Your task to perform on an android device: Clear the shopping cart on newegg.com. Add corsair k70 to the cart on newegg.com, then select checkout. Image 0: 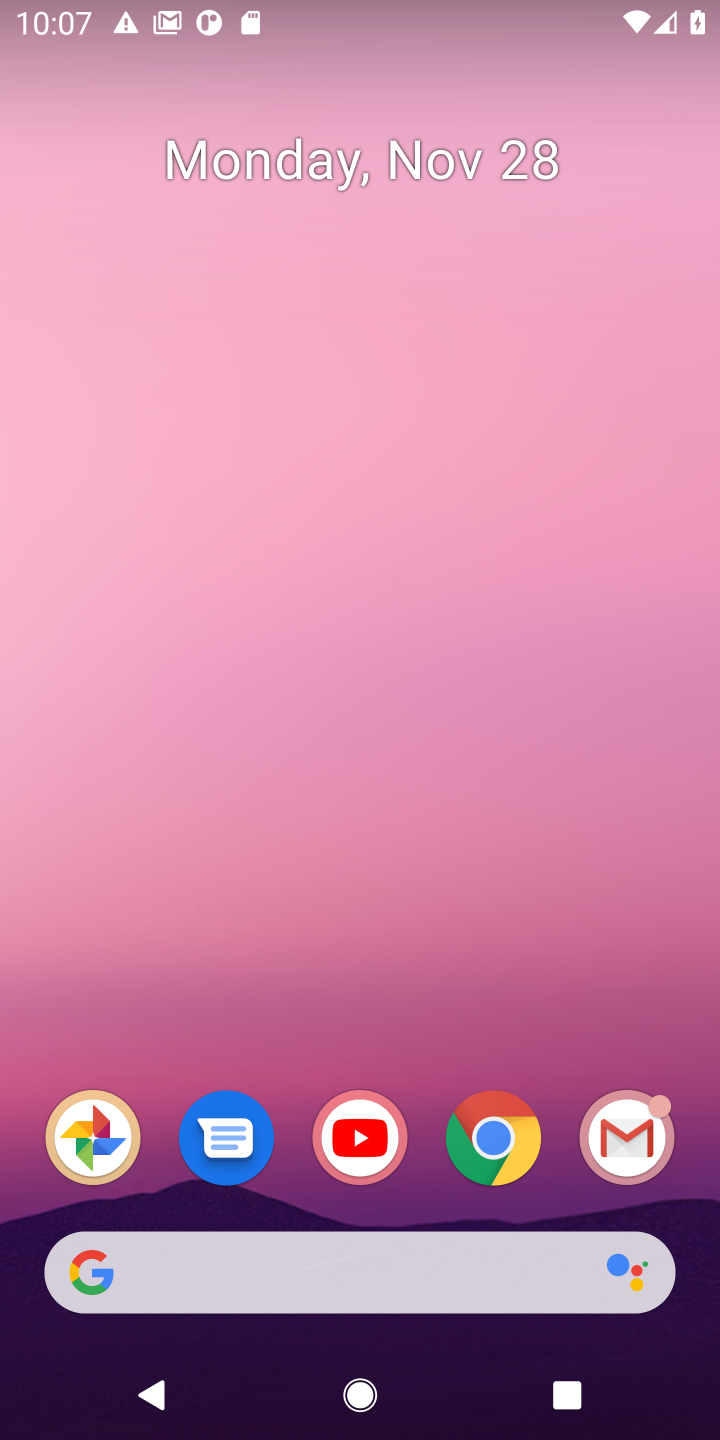
Step 0: click (493, 1135)
Your task to perform on an android device: Clear the shopping cart on newegg.com. Add corsair k70 to the cart on newegg.com, then select checkout. Image 1: 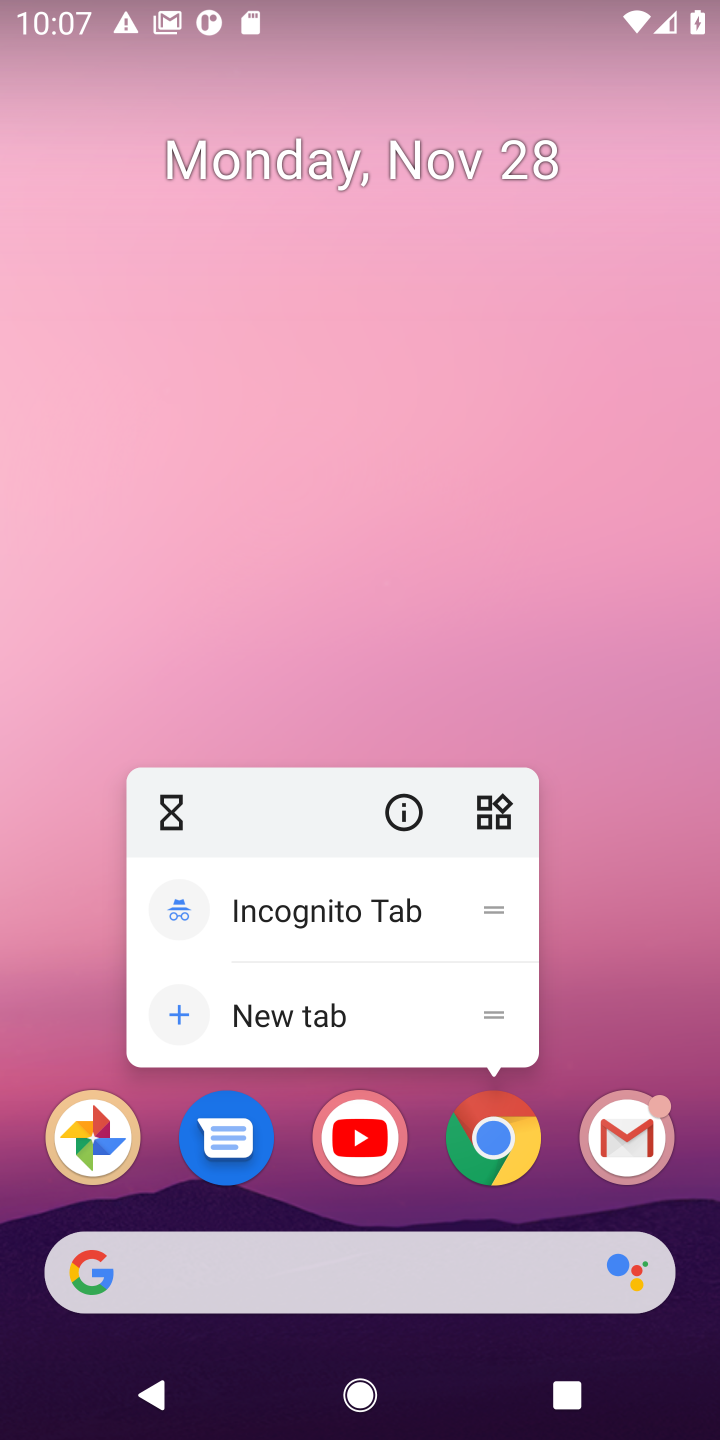
Step 1: click (493, 1135)
Your task to perform on an android device: Clear the shopping cart on newegg.com. Add corsair k70 to the cart on newegg.com, then select checkout. Image 2: 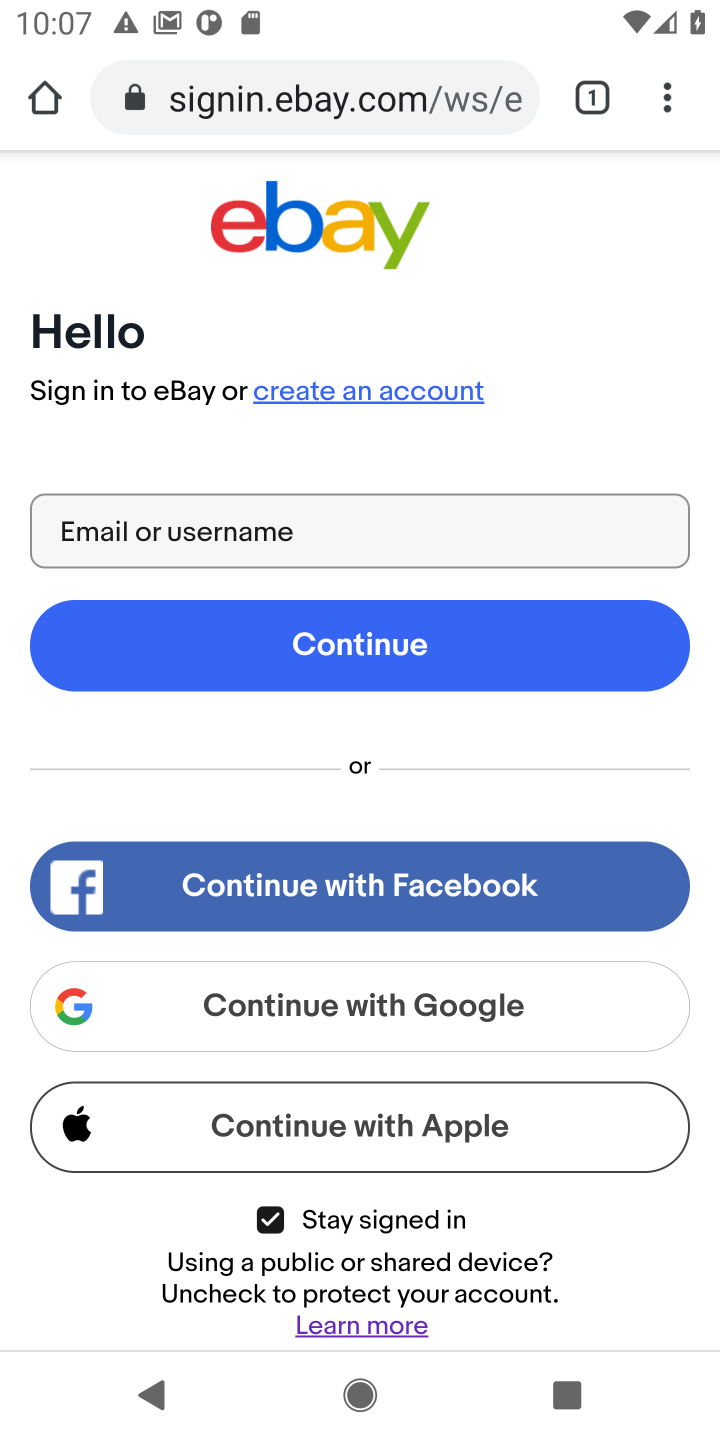
Step 2: click (279, 109)
Your task to perform on an android device: Clear the shopping cart on newegg.com. Add corsair k70 to the cart on newegg.com, then select checkout. Image 3: 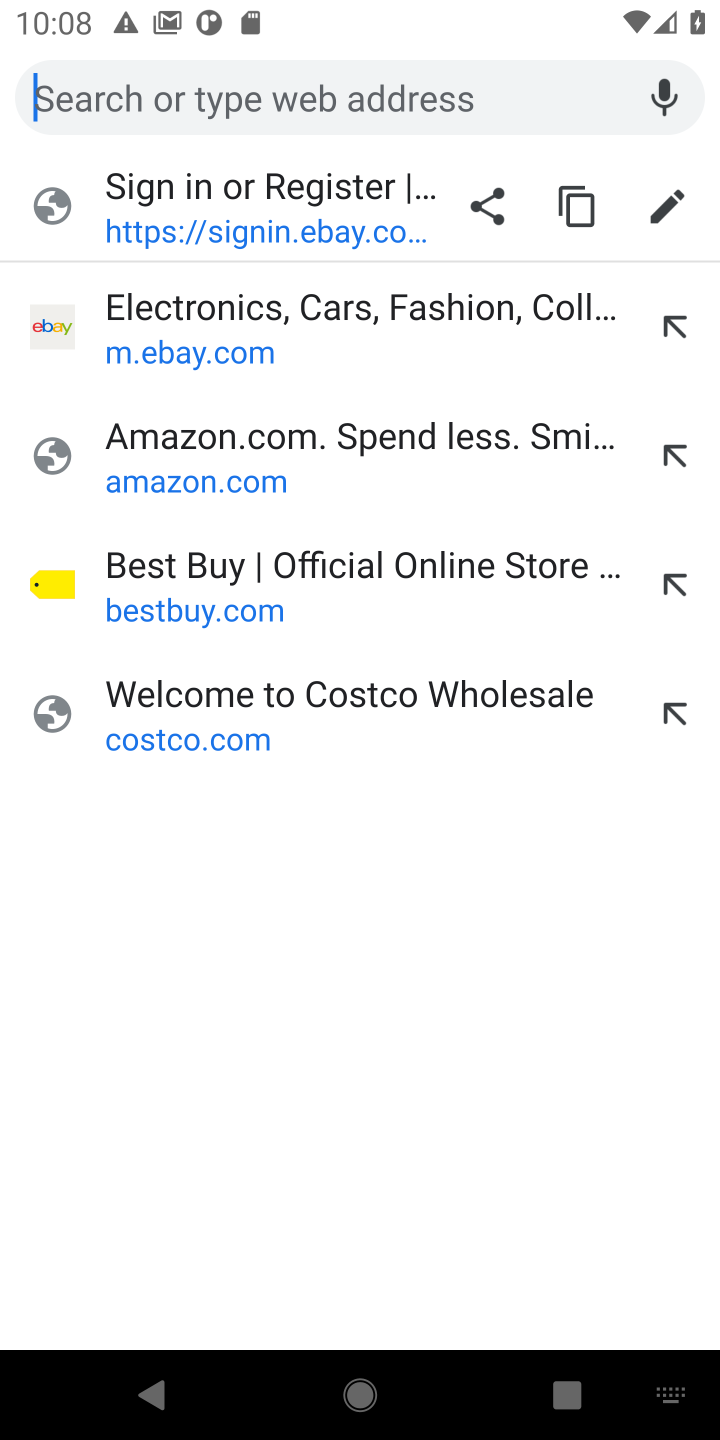
Step 3: type "newegg.com"
Your task to perform on an android device: Clear the shopping cart on newegg.com. Add corsair k70 to the cart on newegg.com, then select checkout. Image 4: 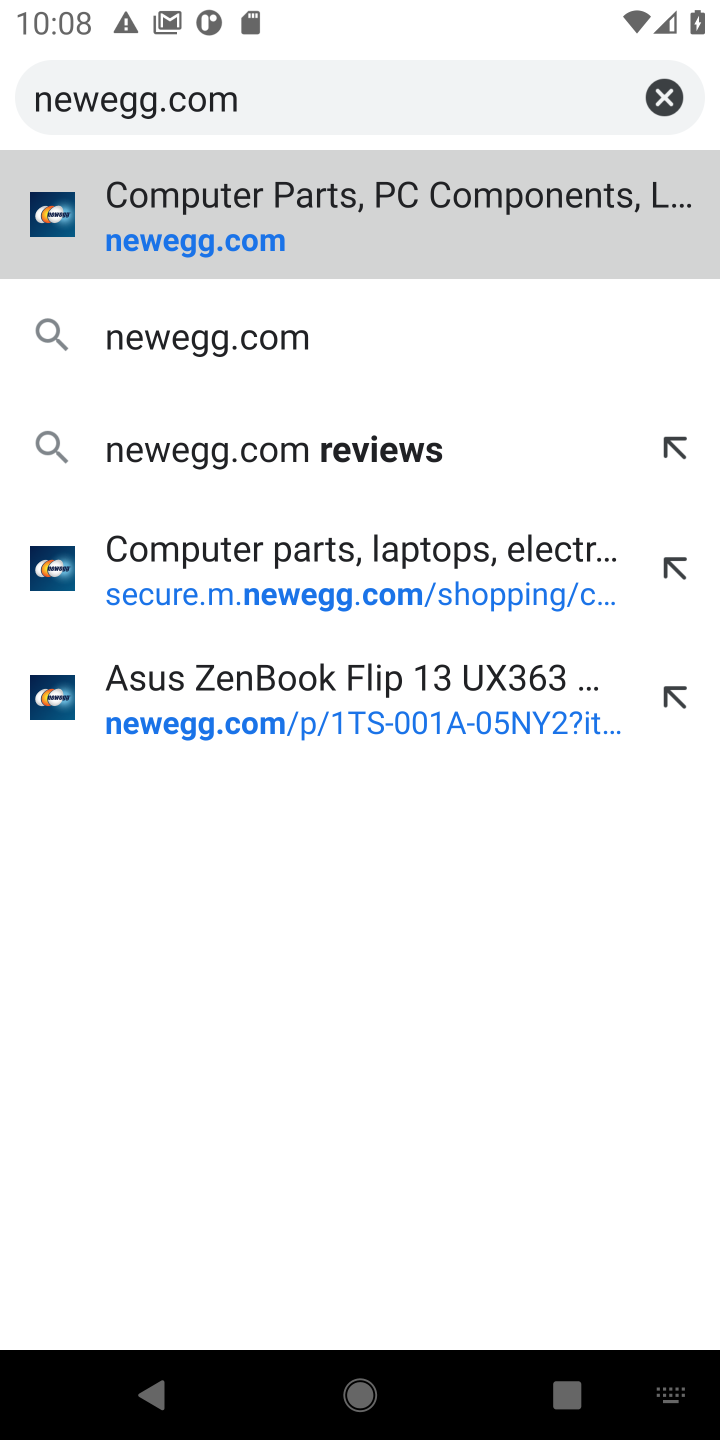
Step 4: click (181, 249)
Your task to perform on an android device: Clear the shopping cart on newegg.com. Add corsair k70 to the cart on newegg.com, then select checkout. Image 5: 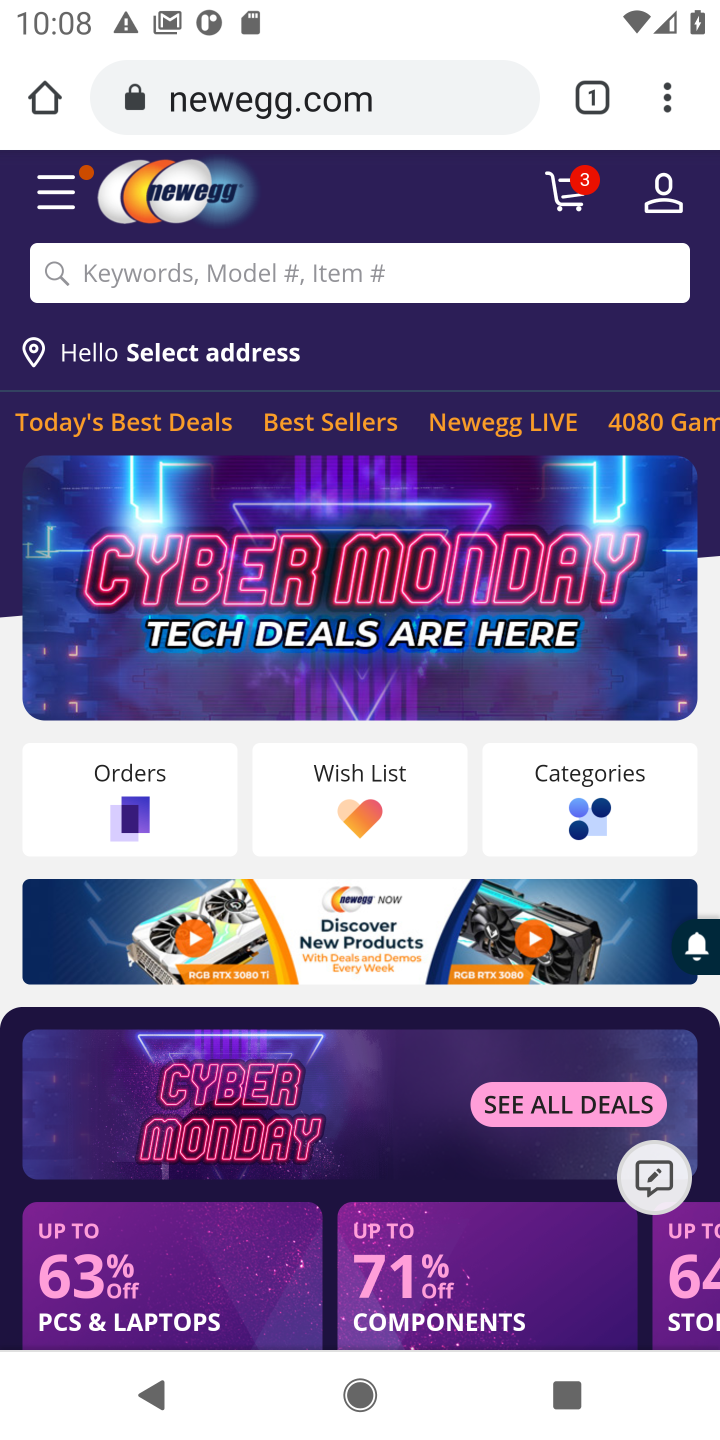
Step 5: click (560, 191)
Your task to perform on an android device: Clear the shopping cart on newegg.com. Add corsair k70 to the cart on newegg.com, then select checkout. Image 6: 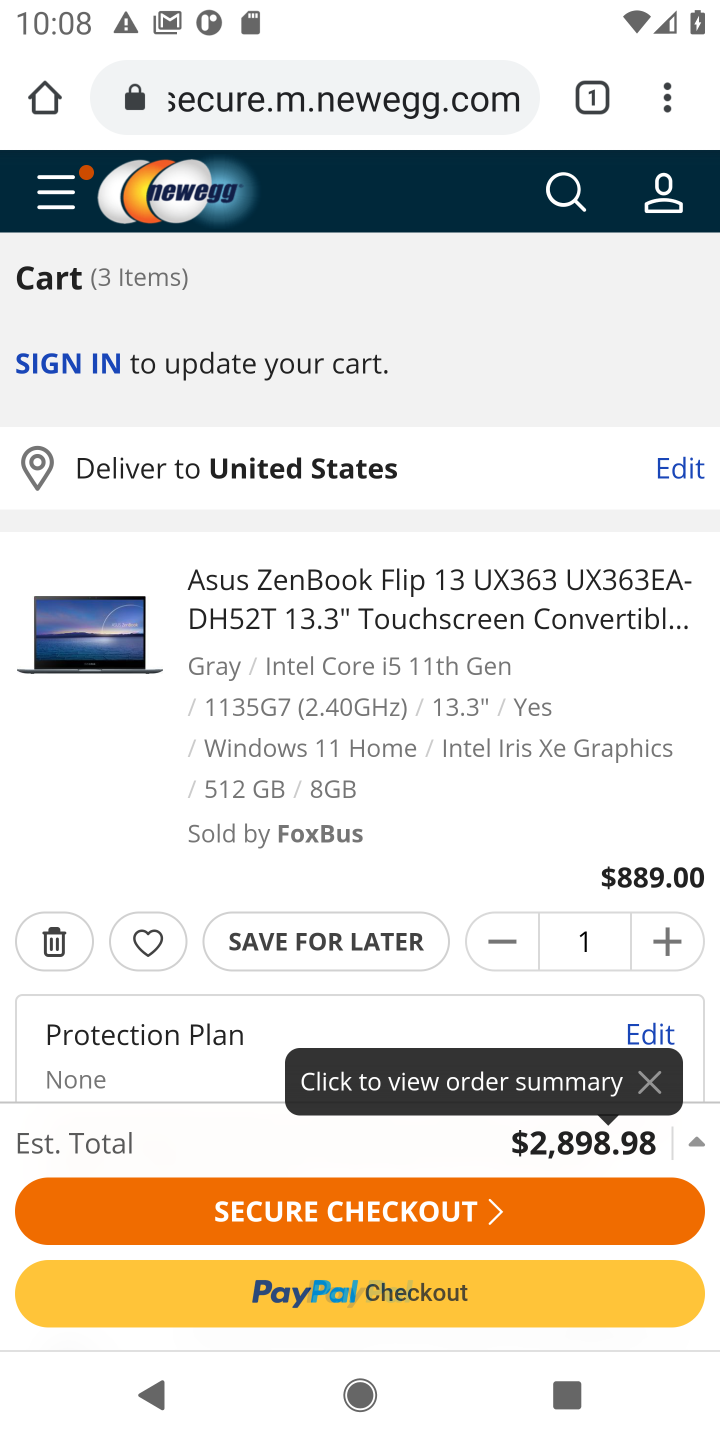
Step 6: click (49, 944)
Your task to perform on an android device: Clear the shopping cart on newegg.com. Add corsair k70 to the cart on newegg.com, then select checkout. Image 7: 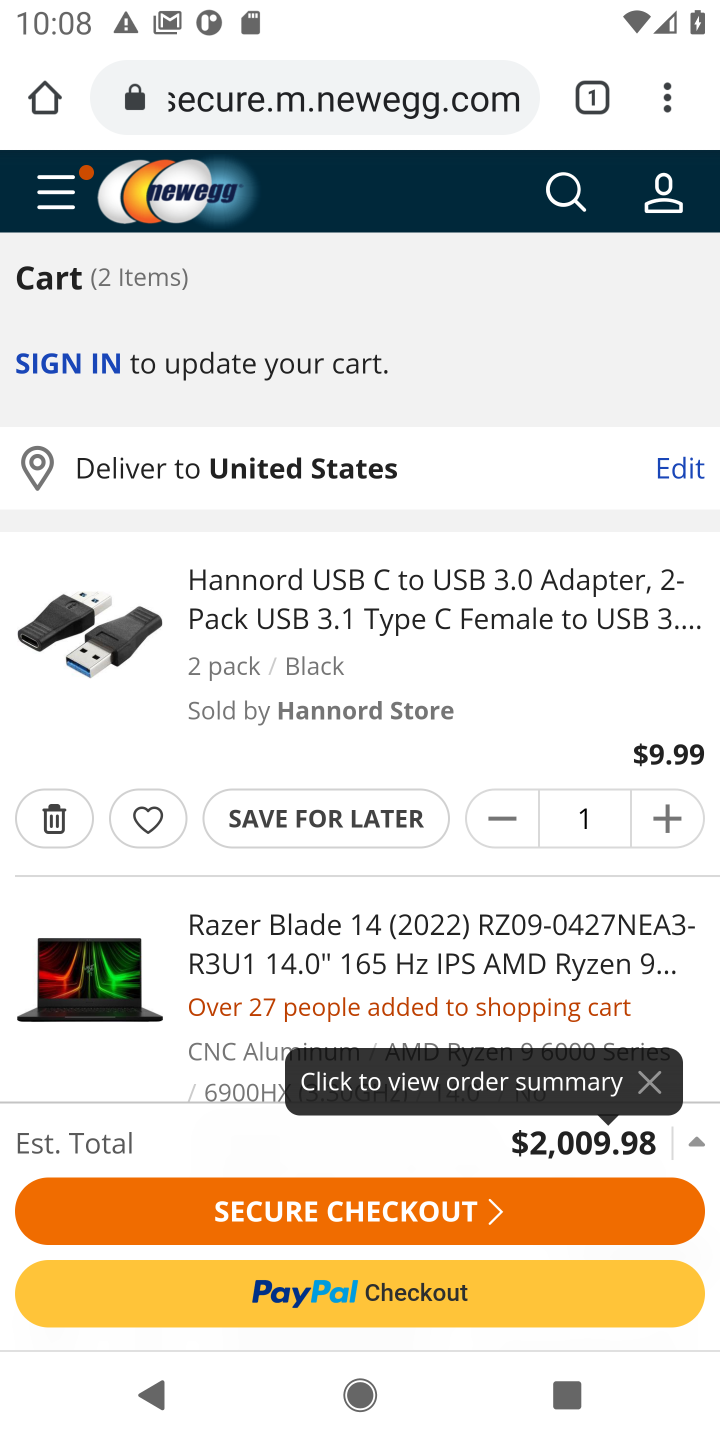
Step 7: click (49, 833)
Your task to perform on an android device: Clear the shopping cart on newegg.com. Add corsair k70 to the cart on newegg.com, then select checkout. Image 8: 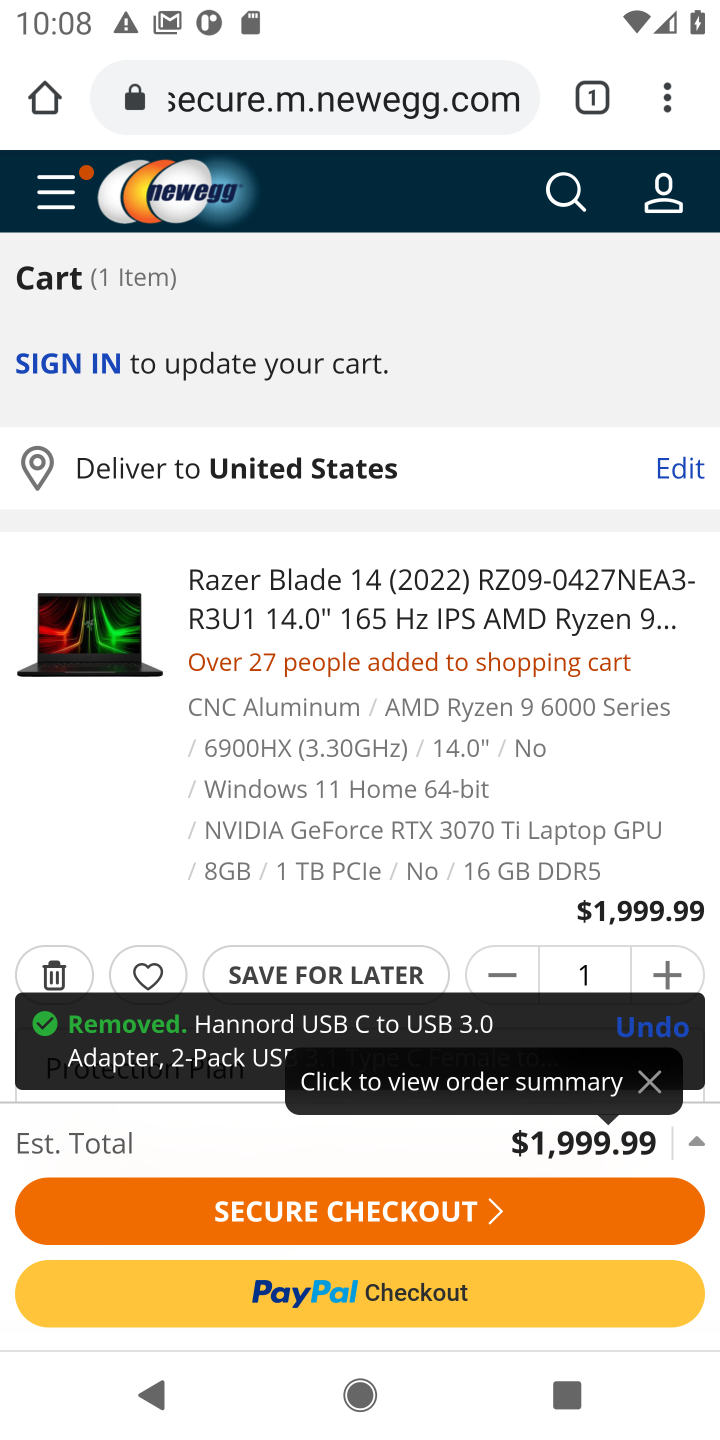
Step 8: click (52, 975)
Your task to perform on an android device: Clear the shopping cart on newegg.com. Add corsair k70 to the cart on newegg.com, then select checkout. Image 9: 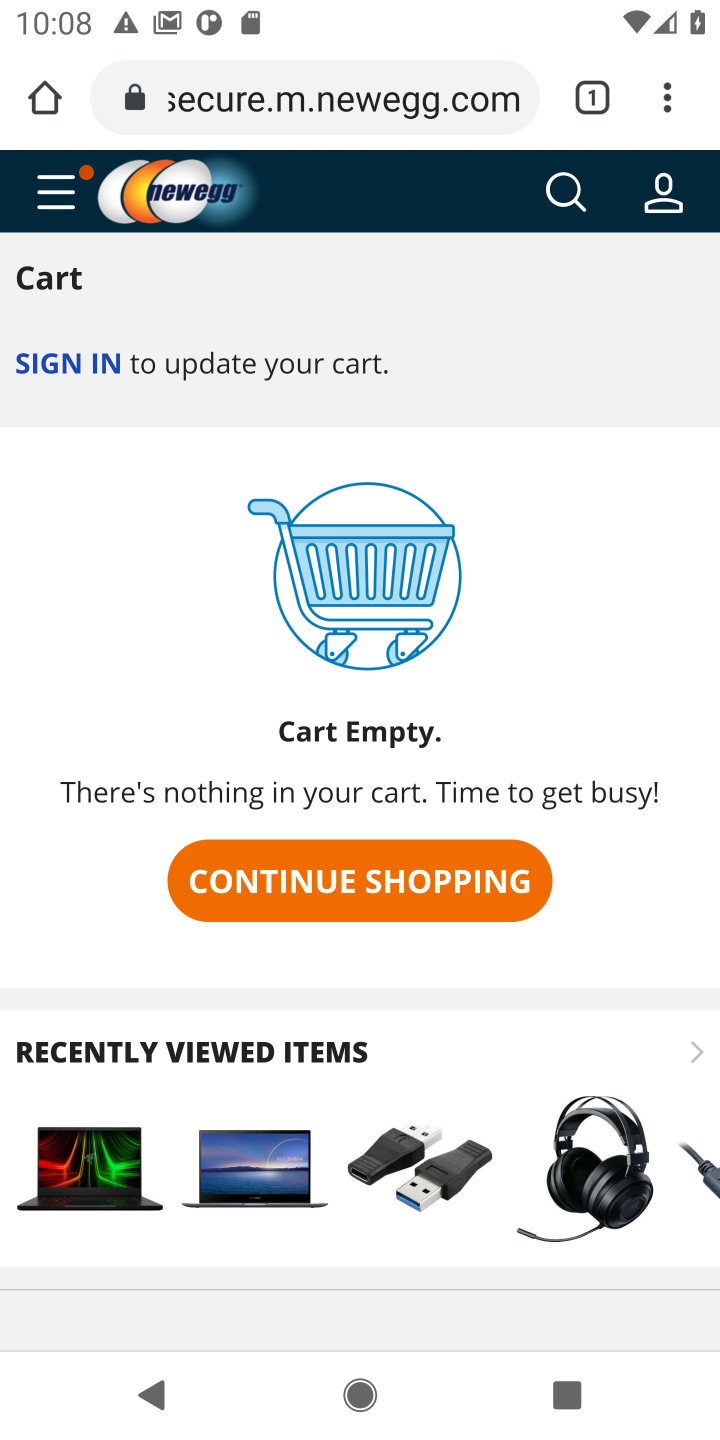
Step 9: click (562, 192)
Your task to perform on an android device: Clear the shopping cart on newegg.com. Add corsair k70 to the cart on newegg.com, then select checkout. Image 10: 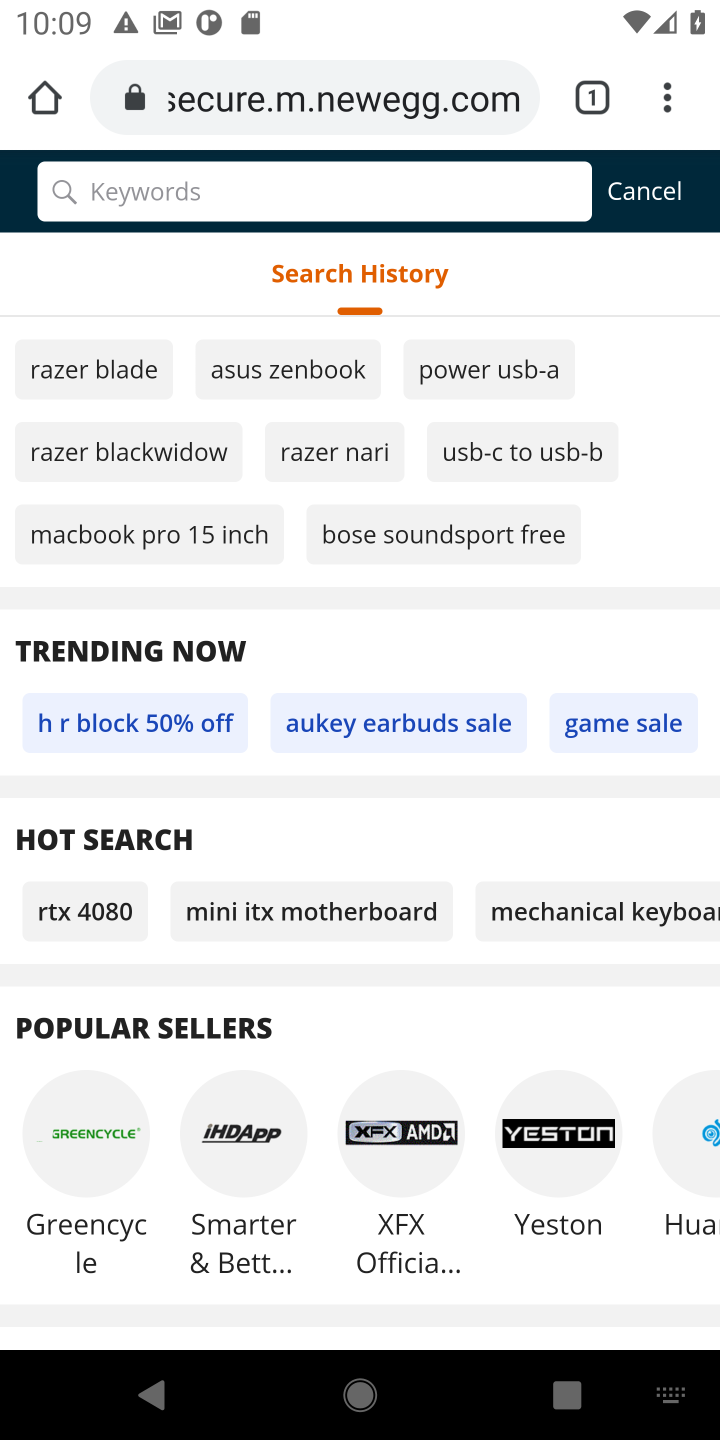
Step 10: click (170, 198)
Your task to perform on an android device: Clear the shopping cart on newegg.com. Add corsair k70 to the cart on newegg.com, then select checkout. Image 11: 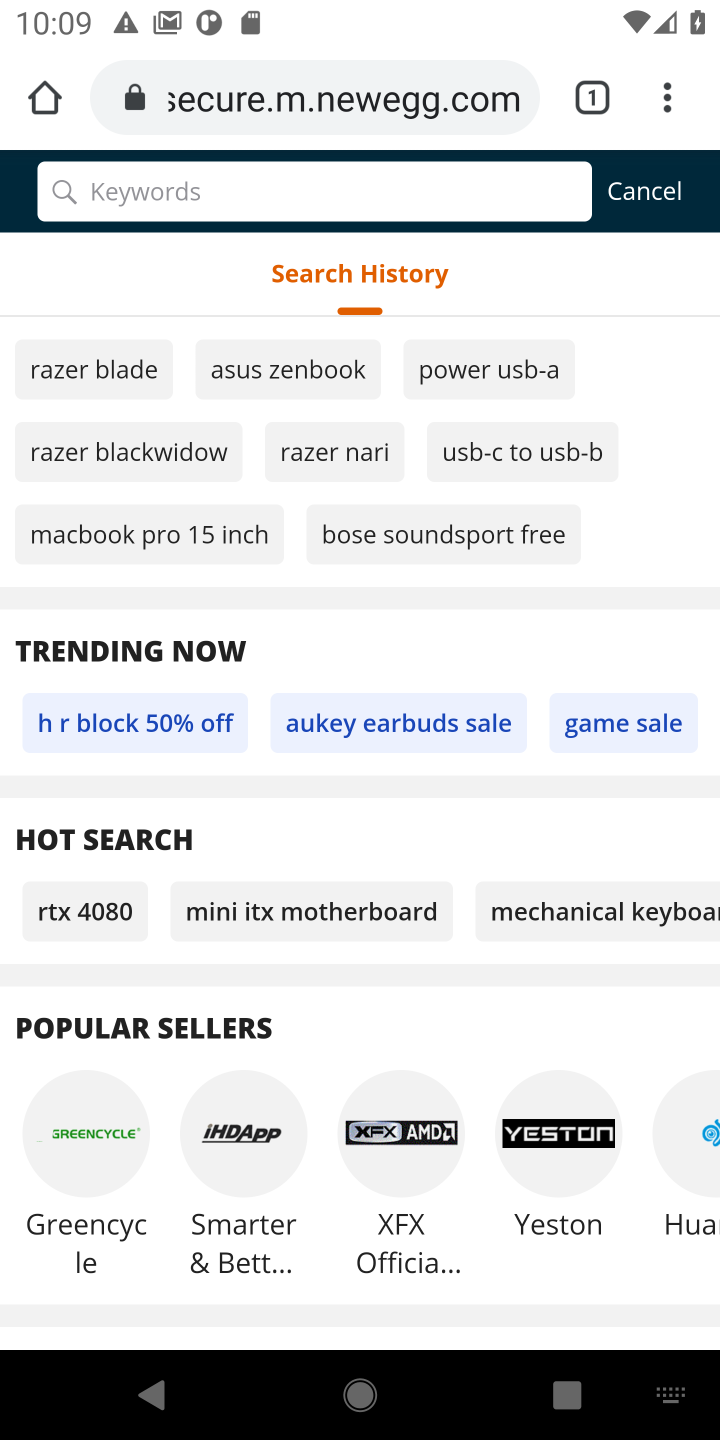
Step 11: type "corsair k70"
Your task to perform on an android device: Clear the shopping cart on newegg.com. Add corsair k70 to the cart on newegg.com, then select checkout. Image 12: 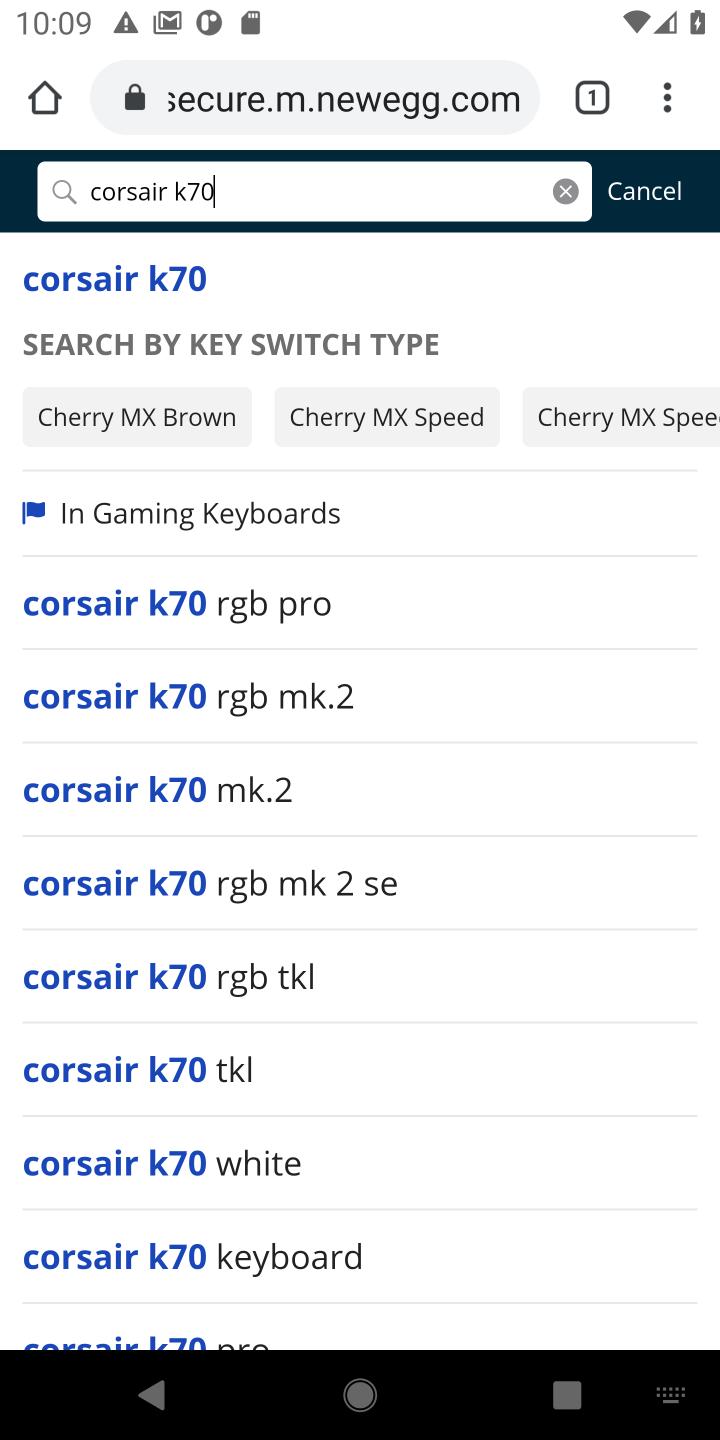
Step 12: click (111, 286)
Your task to perform on an android device: Clear the shopping cart on newegg.com. Add corsair k70 to the cart on newegg.com, then select checkout. Image 13: 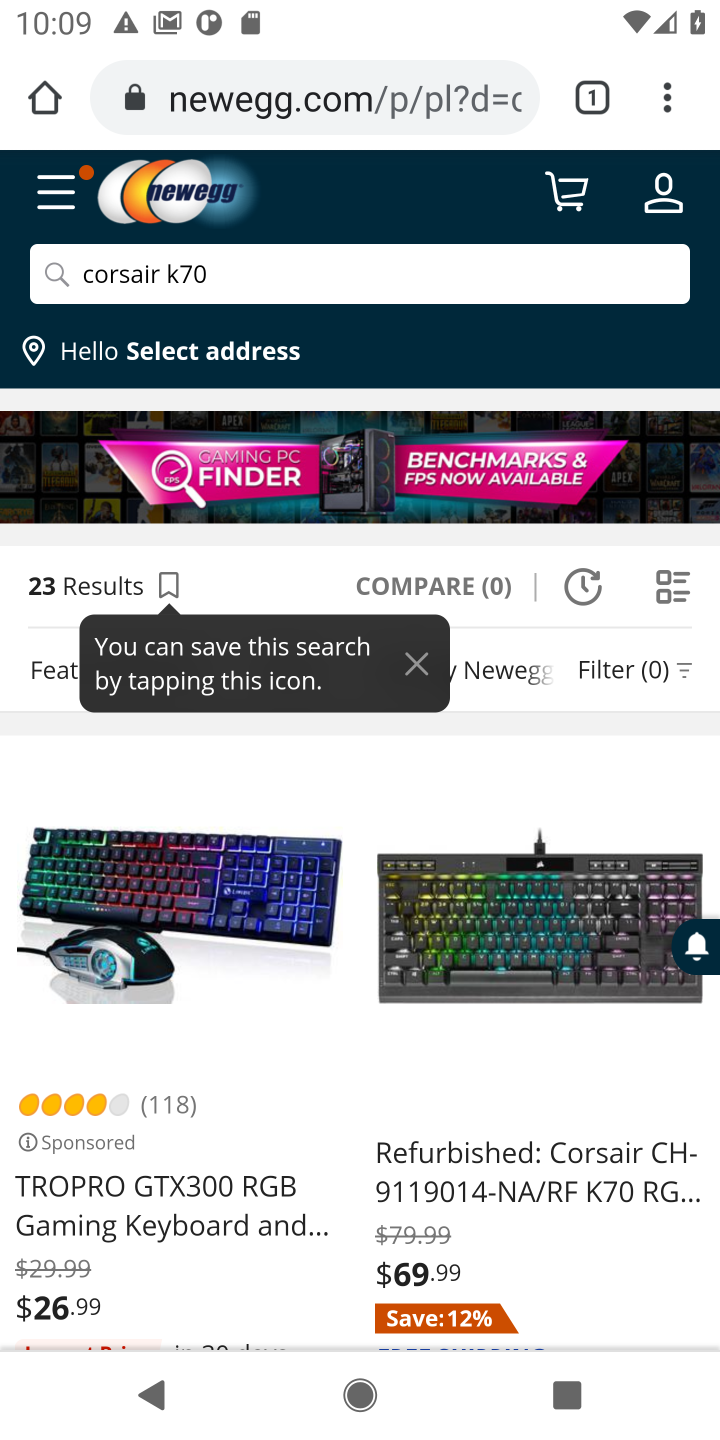
Step 13: click (550, 1186)
Your task to perform on an android device: Clear the shopping cart on newegg.com. Add corsair k70 to the cart on newegg.com, then select checkout. Image 14: 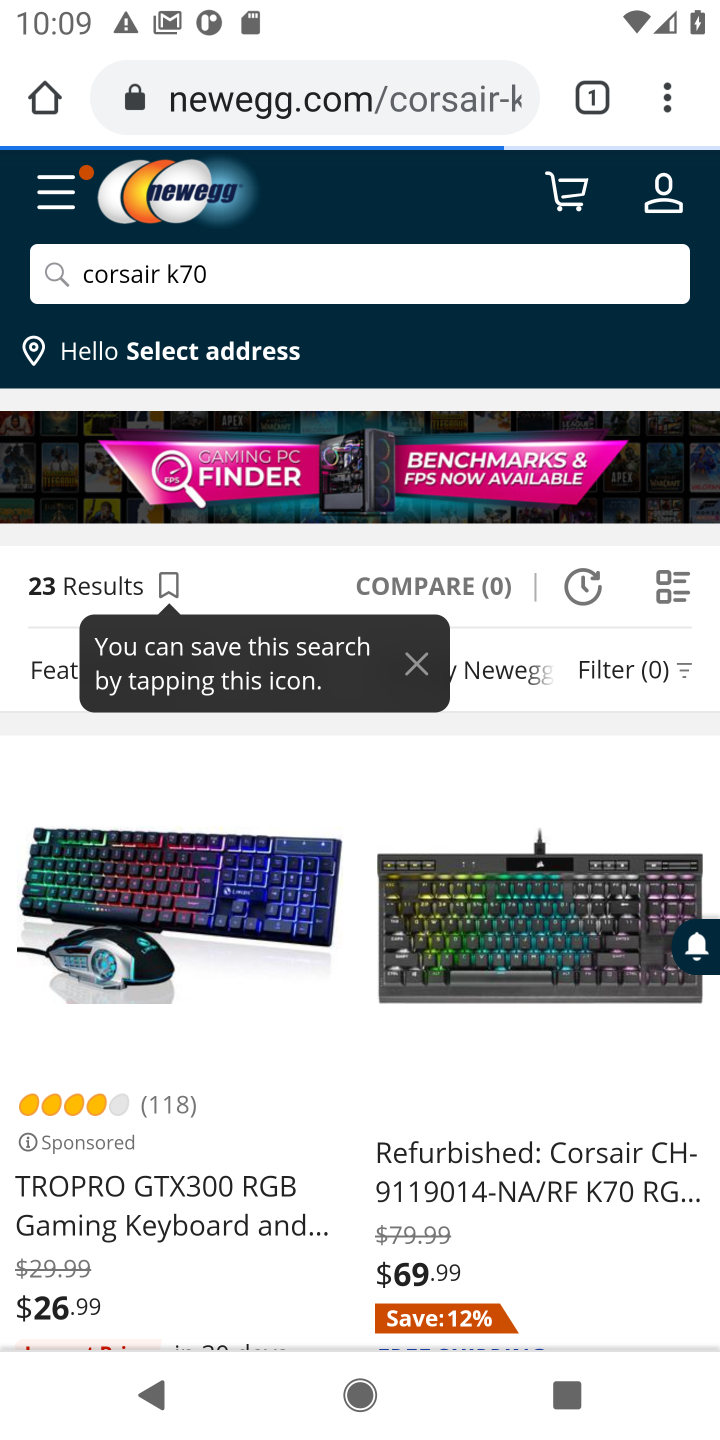
Step 14: click (527, 1171)
Your task to perform on an android device: Clear the shopping cart on newegg.com. Add corsair k70 to the cart on newegg.com, then select checkout. Image 15: 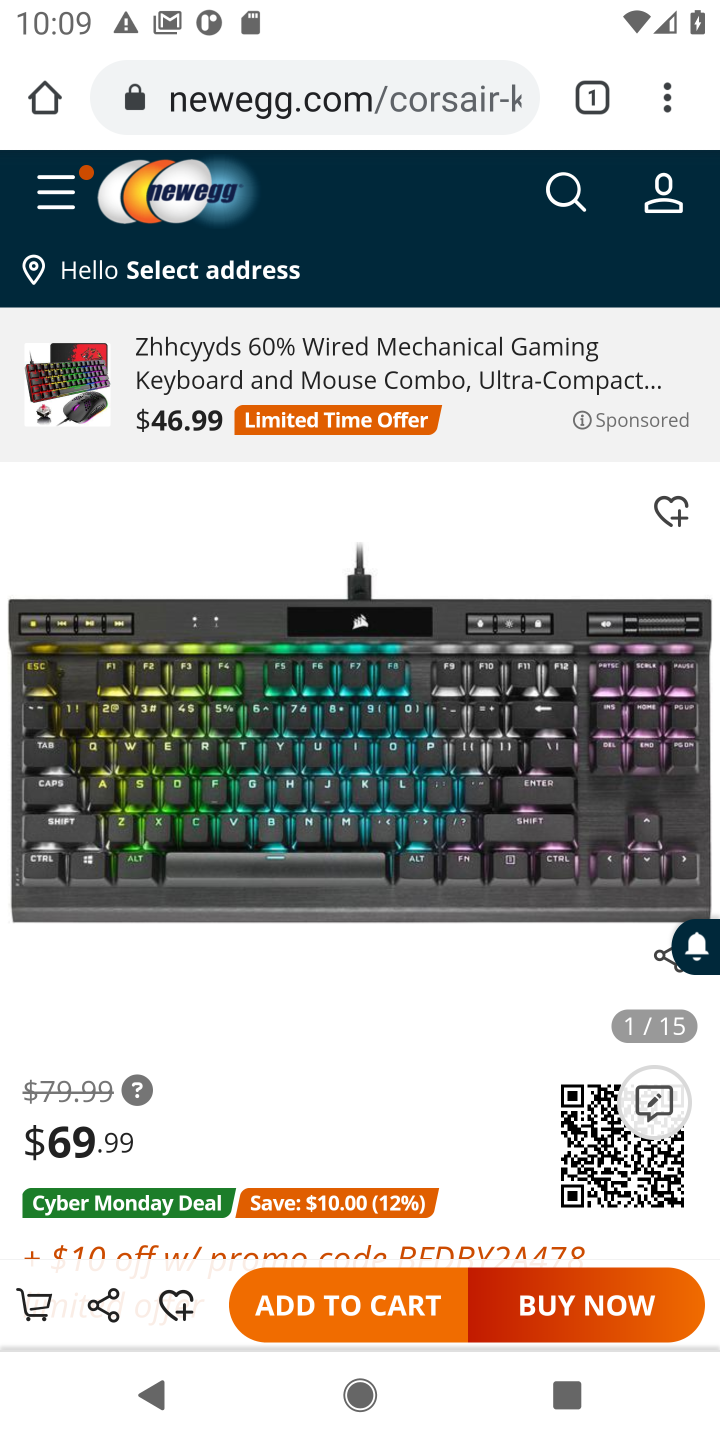
Step 15: drag from (338, 988) to (301, 475)
Your task to perform on an android device: Clear the shopping cart on newegg.com. Add corsair k70 to the cart on newegg.com, then select checkout. Image 16: 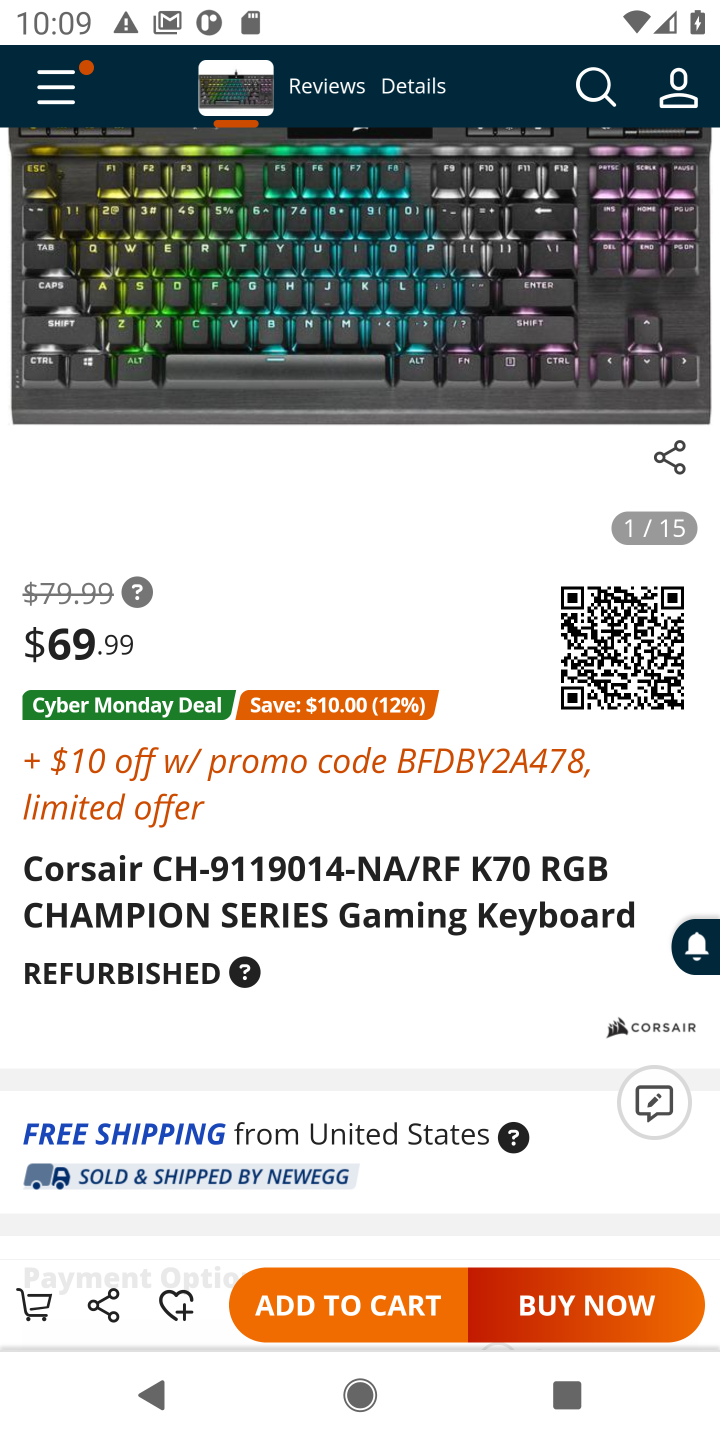
Step 16: click (350, 1309)
Your task to perform on an android device: Clear the shopping cart on newegg.com. Add corsair k70 to the cart on newegg.com, then select checkout. Image 17: 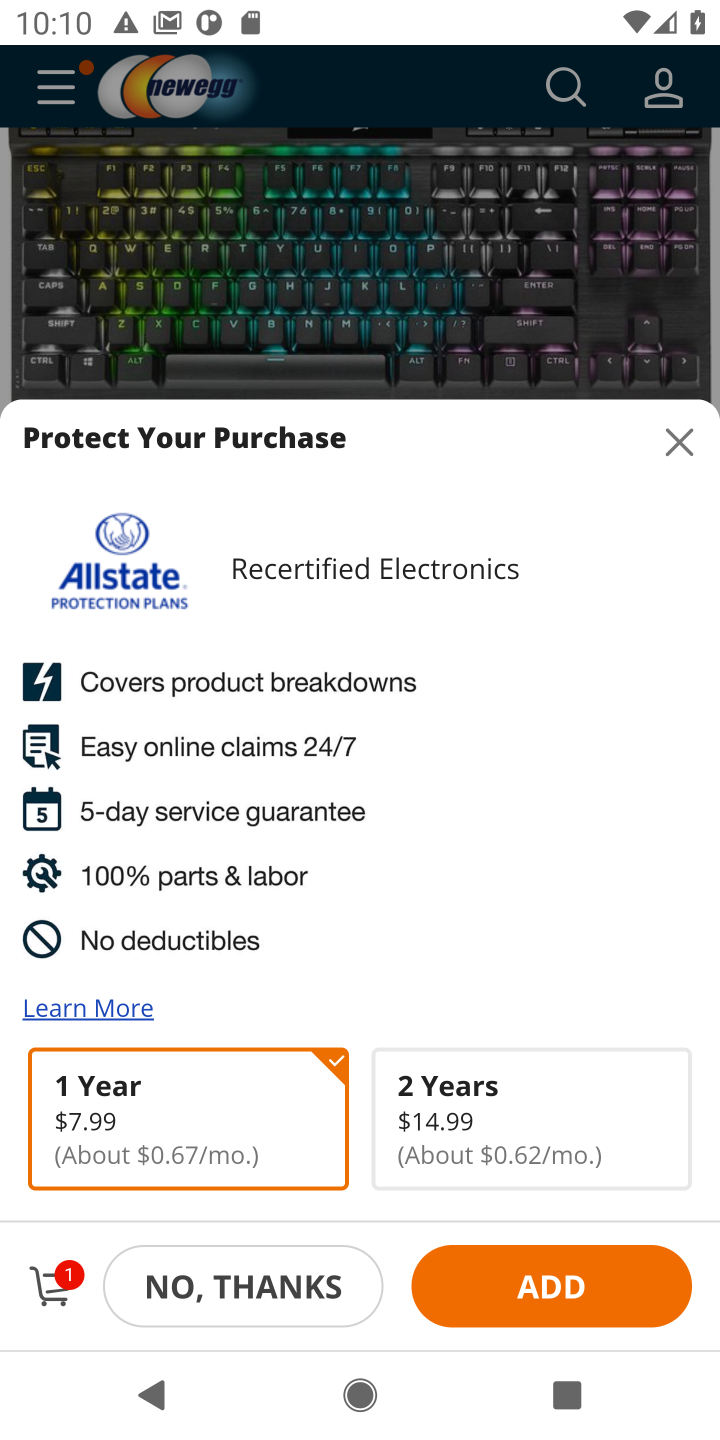
Step 17: click (48, 1287)
Your task to perform on an android device: Clear the shopping cart on newegg.com. Add corsair k70 to the cart on newegg.com, then select checkout. Image 18: 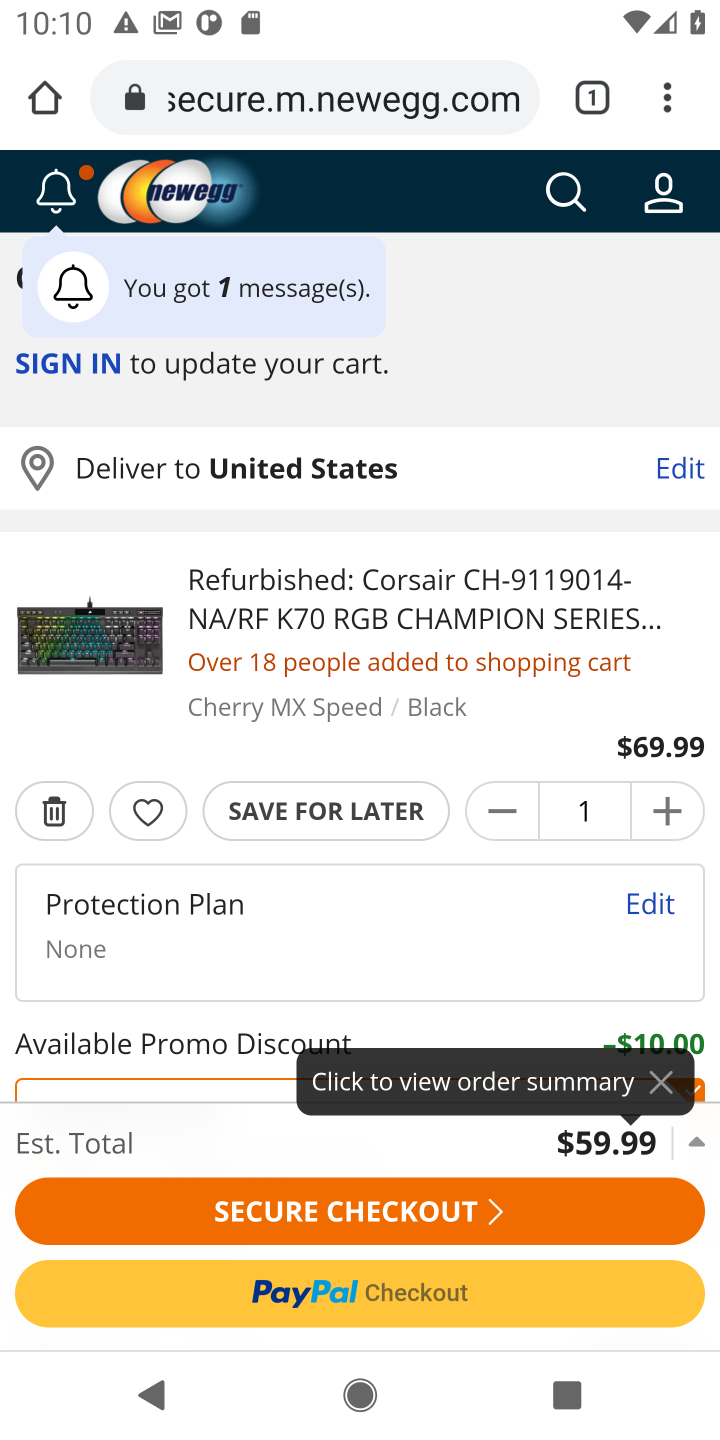
Step 18: click (278, 1202)
Your task to perform on an android device: Clear the shopping cart on newegg.com. Add corsair k70 to the cart on newegg.com, then select checkout. Image 19: 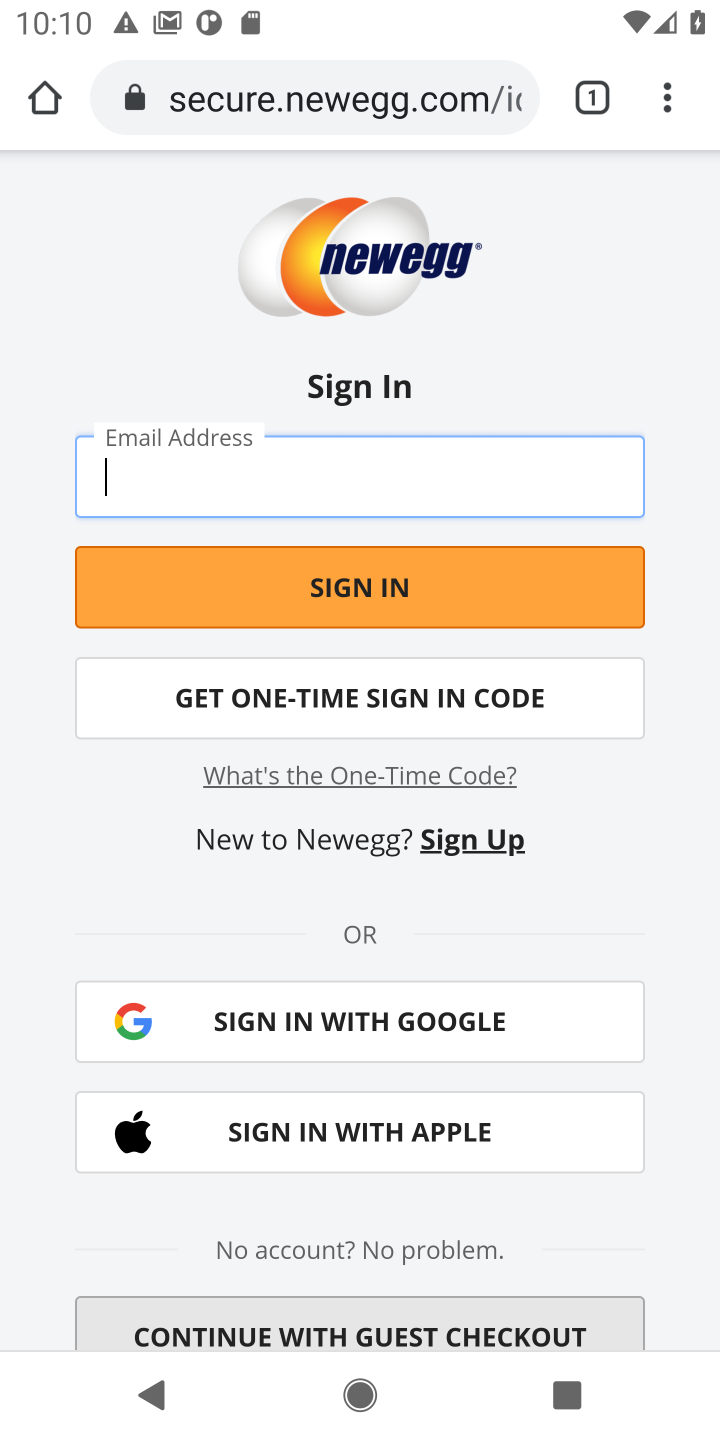
Step 19: task complete